Your task to perform on an android device: manage bookmarks in the chrome app Image 0: 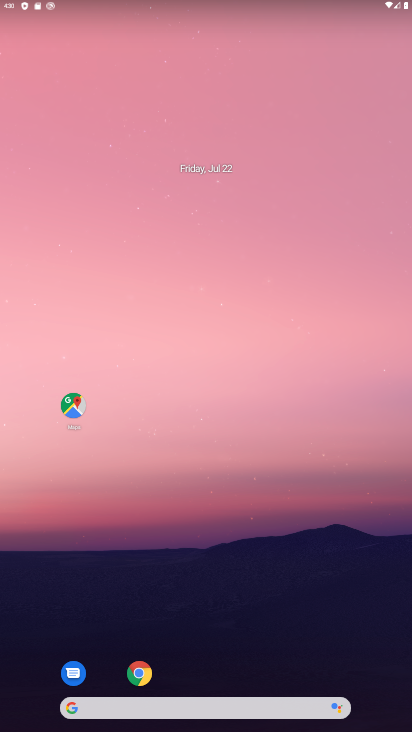
Step 0: press home button
Your task to perform on an android device: manage bookmarks in the chrome app Image 1: 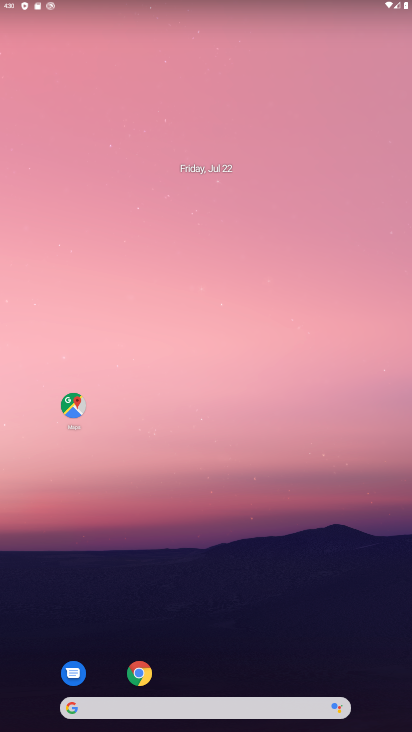
Step 1: click (145, 670)
Your task to perform on an android device: manage bookmarks in the chrome app Image 2: 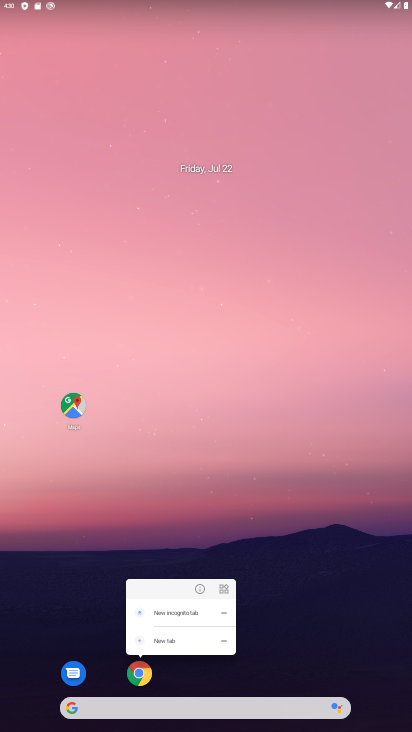
Step 2: click (145, 670)
Your task to perform on an android device: manage bookmarks in the chrome app Image 3: 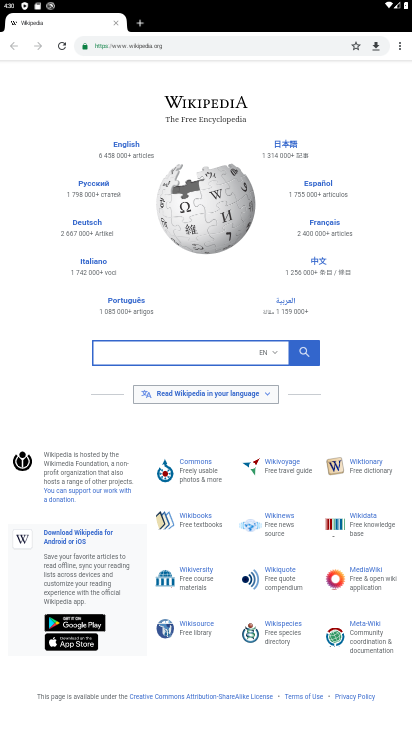
Step 3: task complete